Your task to perform on an android device: open app "Instagram" (install if not already installed) Image 0: 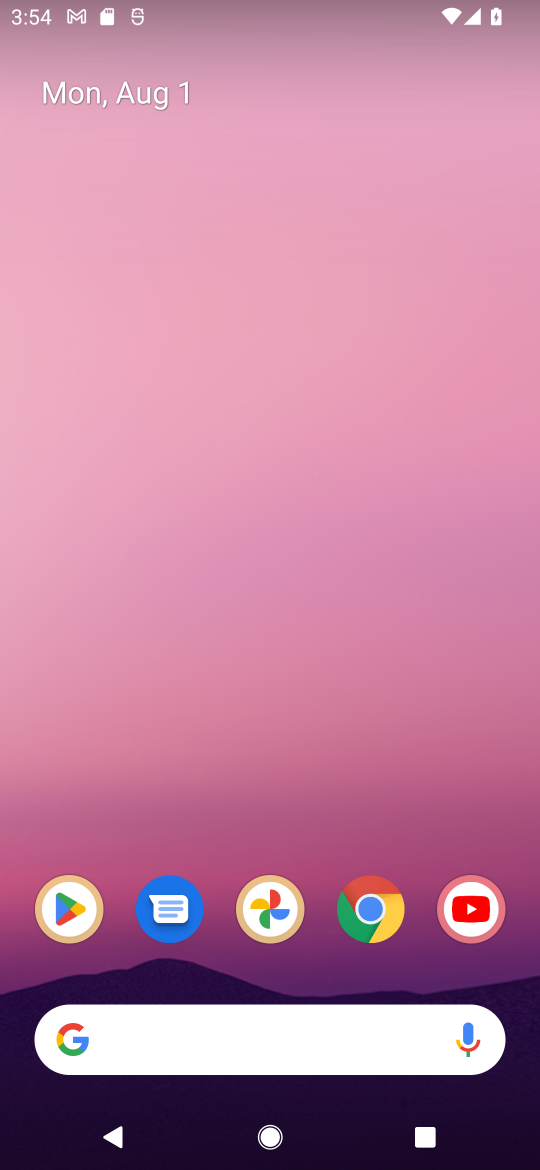
Step 0: click (71, 918)
Your task to perform on an android device: open app "Instagram" (install if not already installed) Image 1: 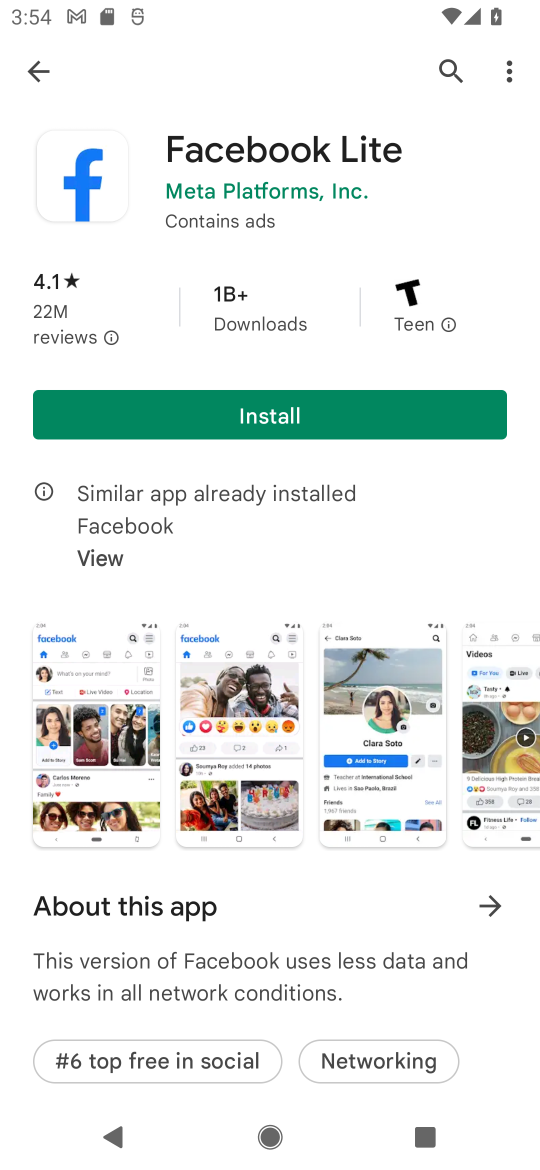
Step 1: click (36, 65)
Your task to perform on an android device: open app "Instagram" (install if not already installed) Image 2: 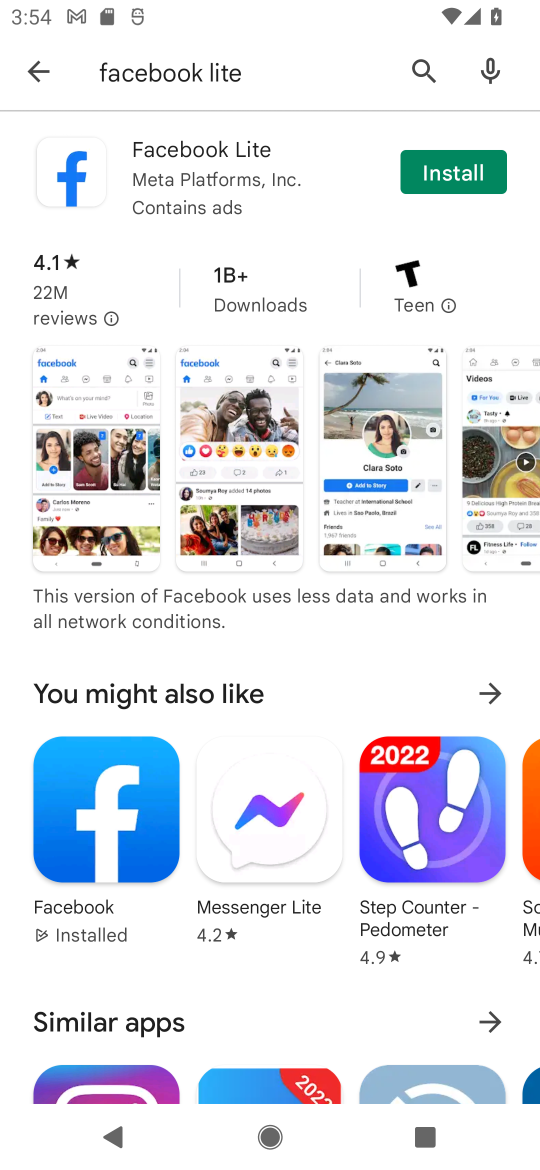
Step 2: click (248, 69)
Your task to perform on an android device: open app "Instagram" (install if not already installed) Image 3: 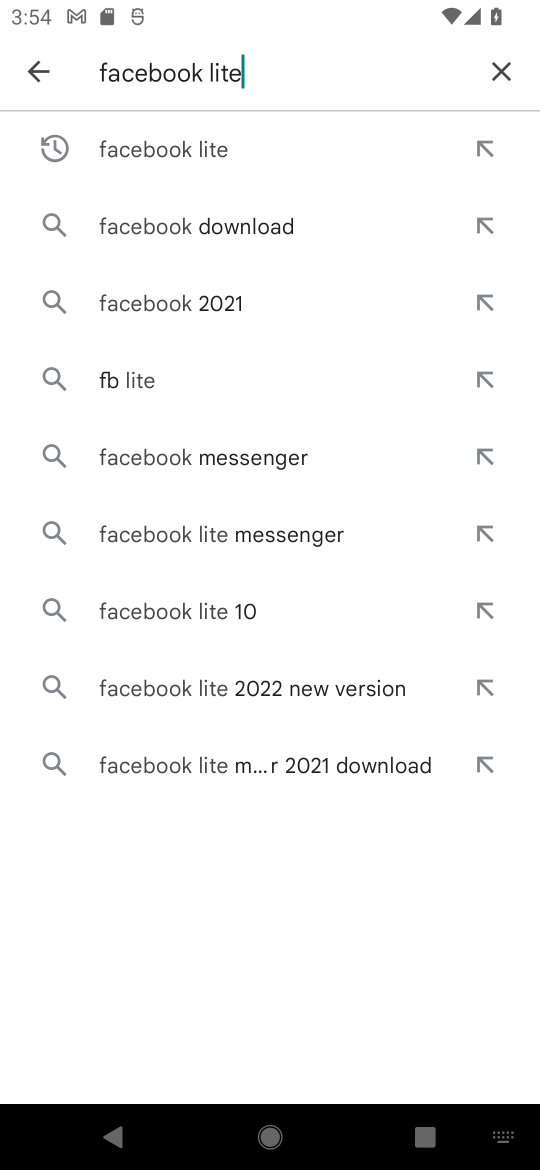
Step 3: click (500, 68)
Your task to perform on an android device: open app "Instagram" (install if not already installed) Image 4: 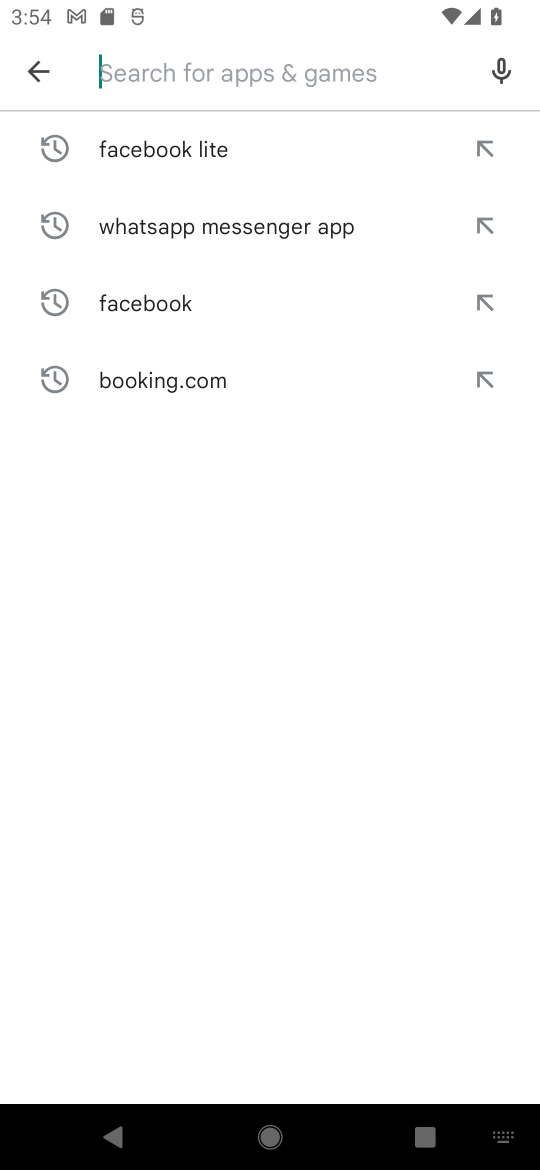
Step 4: type "instagram"
Your task to perform on an android device: open app "Instagram" (install if not already installed) Image 5: 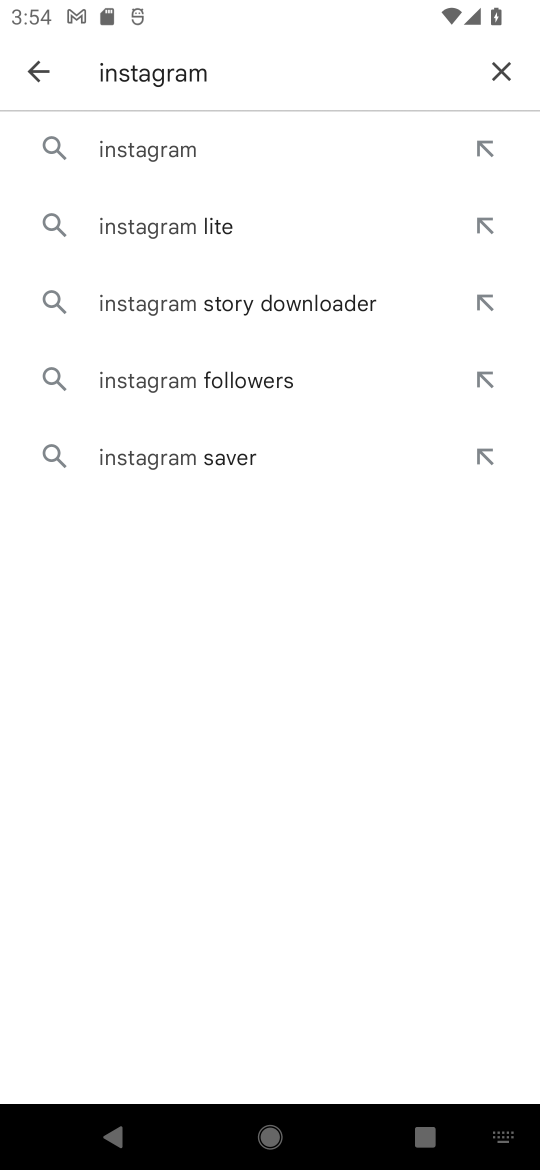
Step 5: click (119, 165)
Your task to perform on an android device: open app "Instagram" (install if not already installed) Image 6: 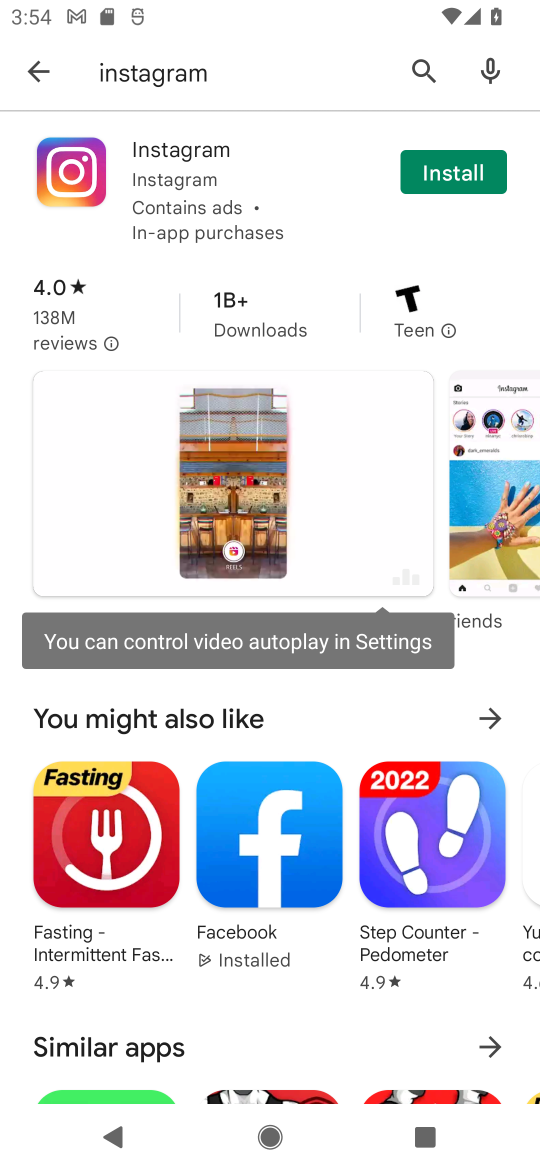
Step 6: click (450, 171)
Your task to perform on an android device: open app "Instagram" (install if not already installed) Image 7: 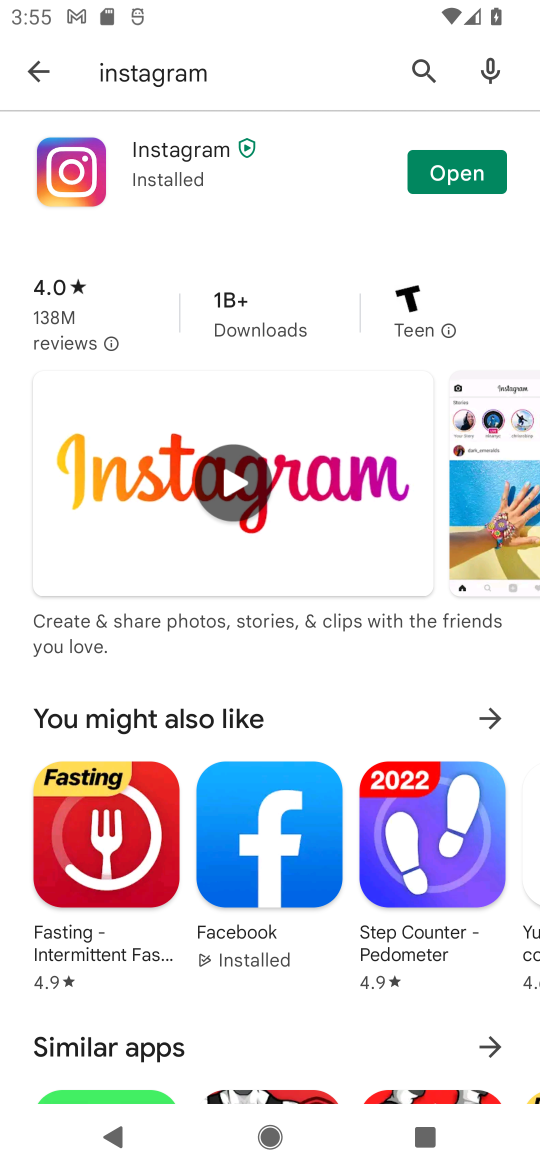
Step 7: click (460, 170)
Your task to perform on an android device: open app "Instagram" (install if not already installed) Image 8: 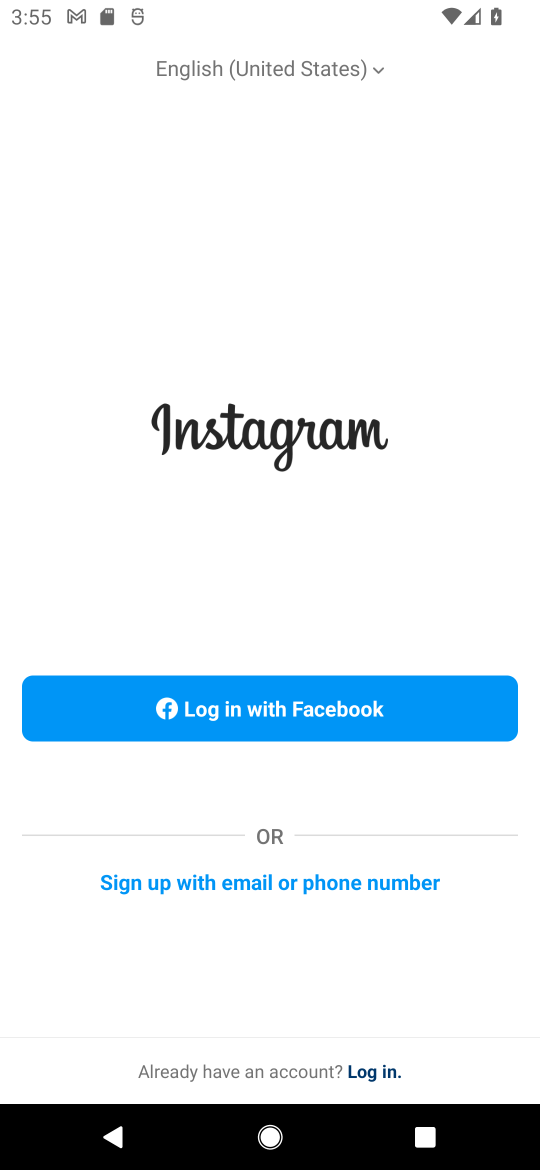
Step 8: task complete